Your task to perform on an android device: check data usage Image 0: 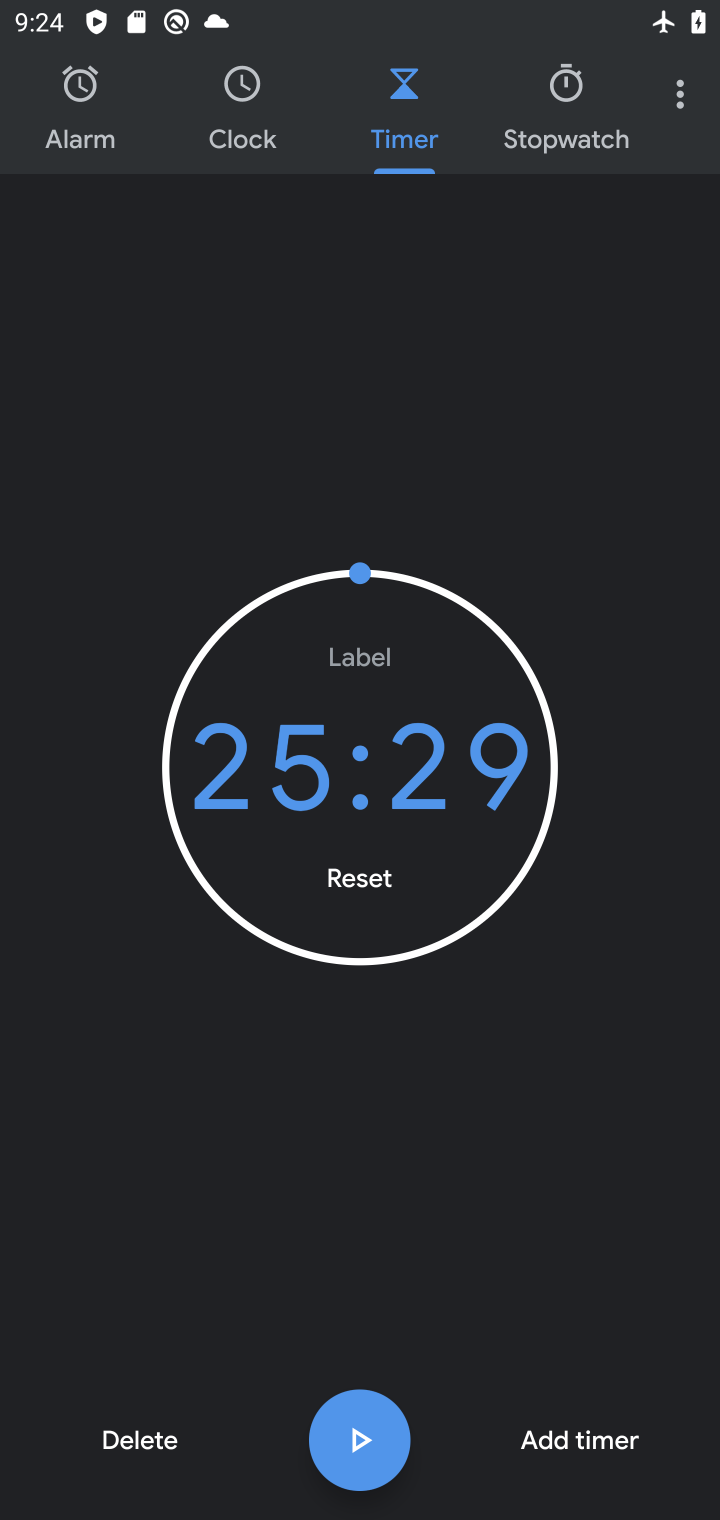
Step 0: press home button
Your task to perform on an android device: check data usage Image 1: 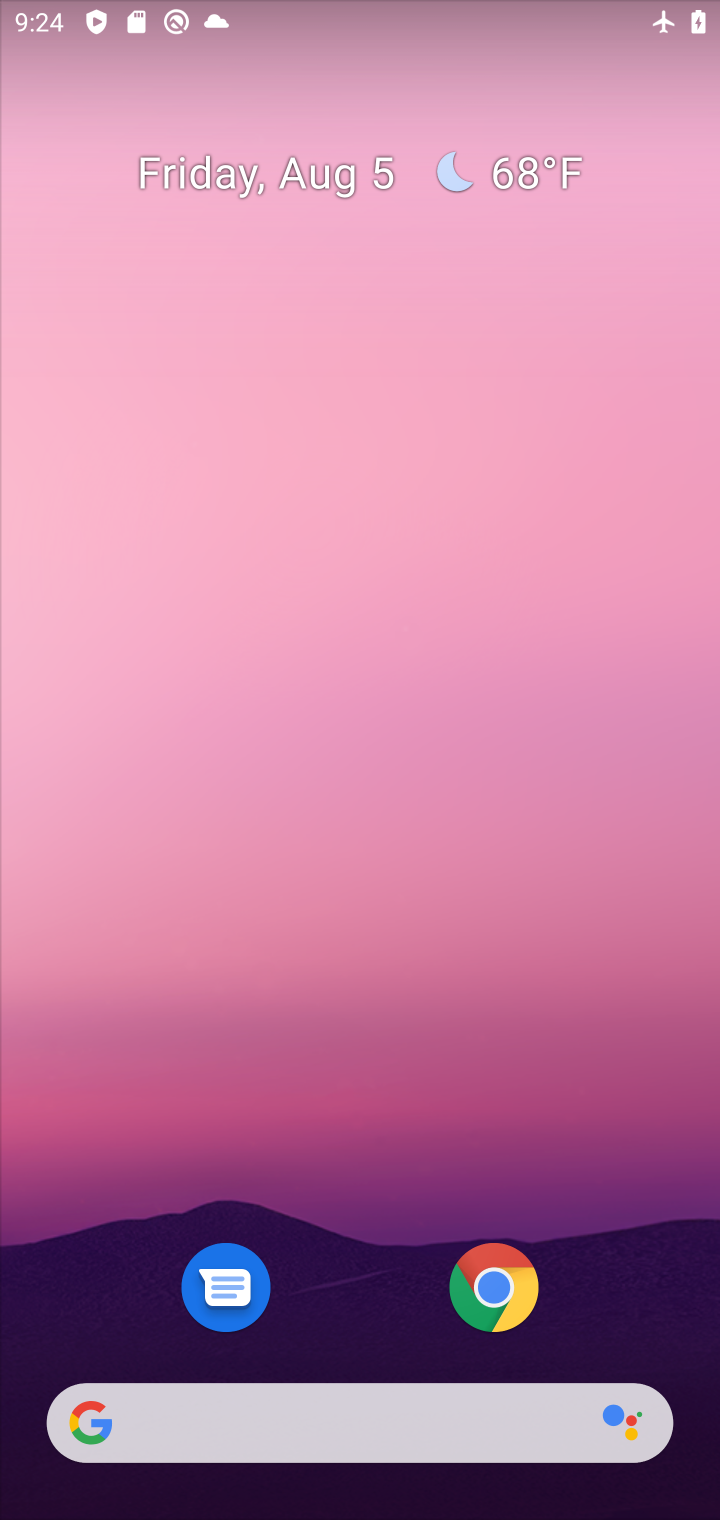
Step 1: drag from (365, 917) to (361, 132)
Your task to perform on an android device: check data usage Image 2: 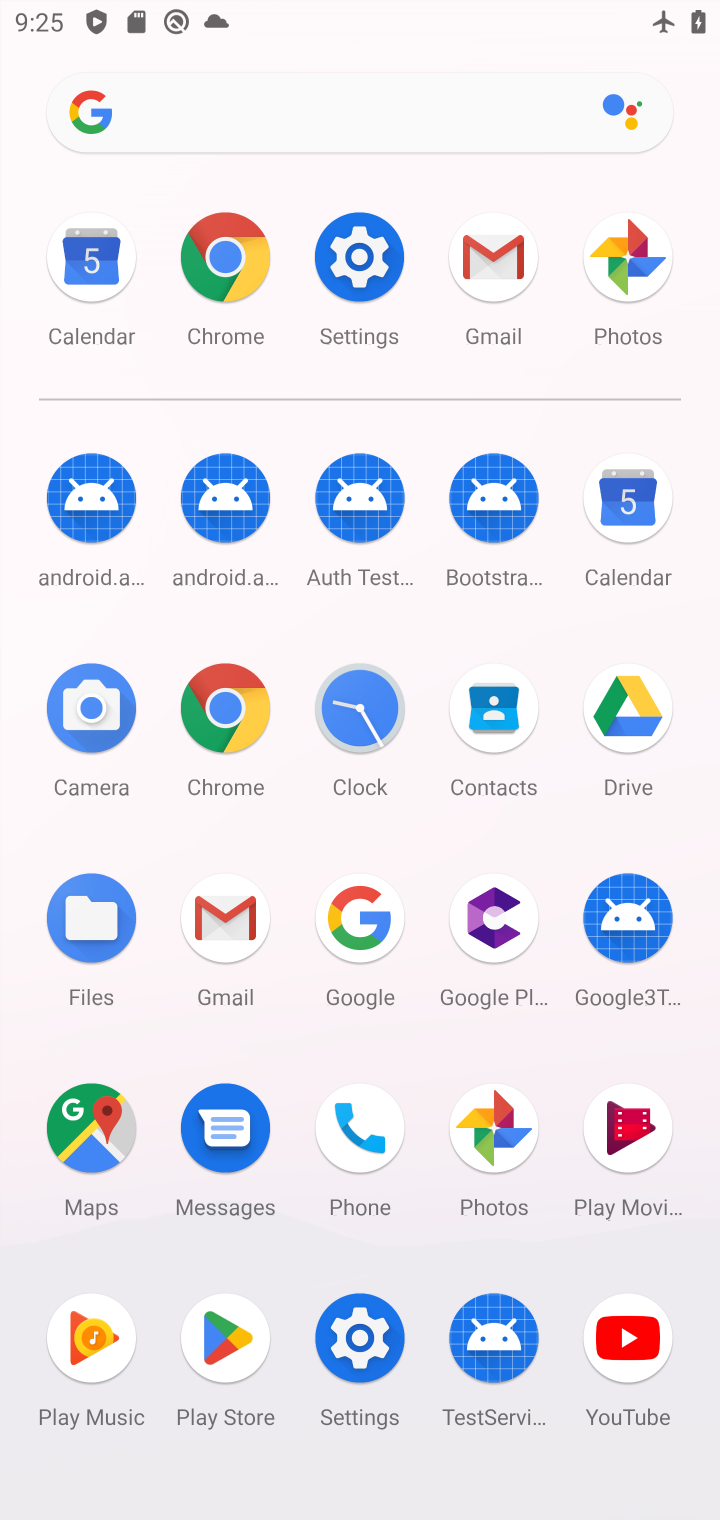
Step 2: click (346, 242)
Your task to perform on an android device: check data usage Image 3: 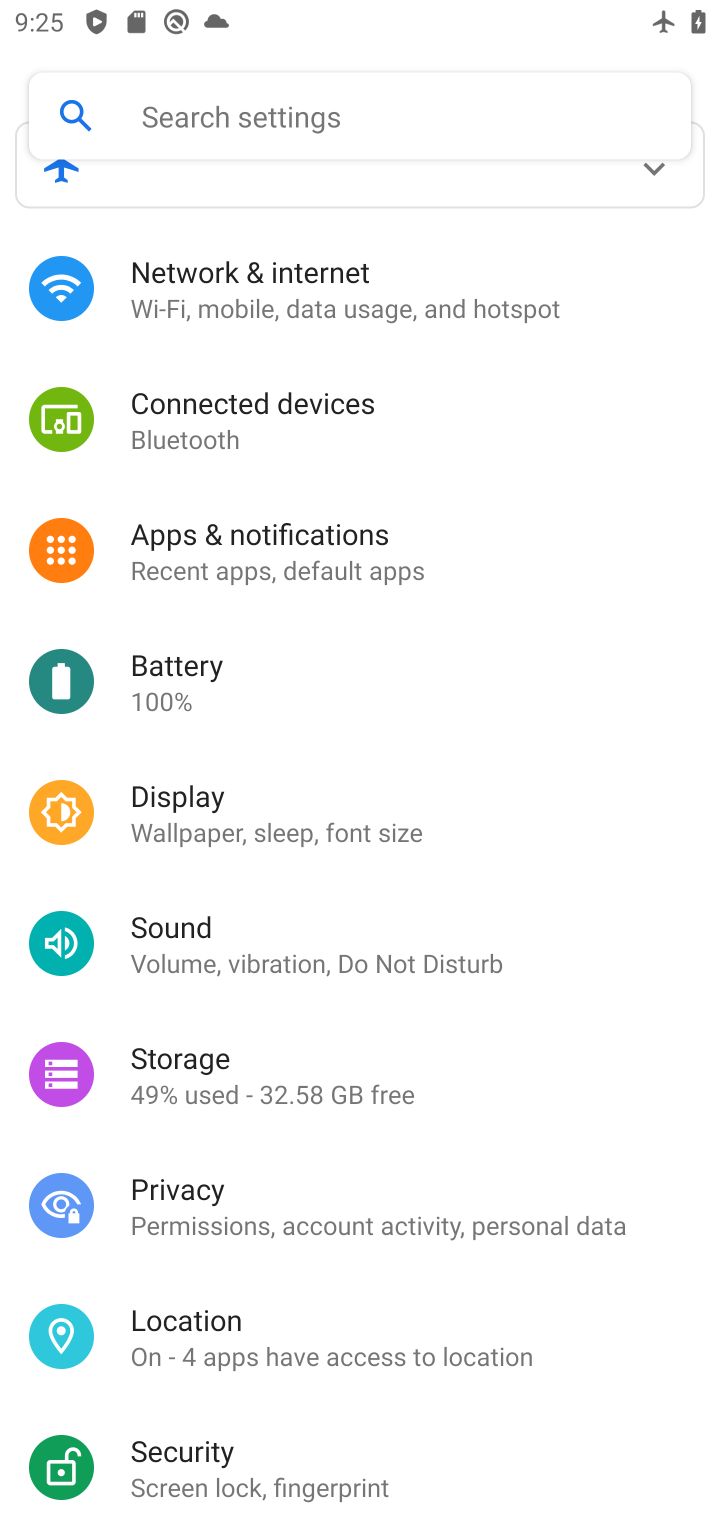
Step 3: click (264, 298)
Your task to perform on an android device: check data usage Image 4: 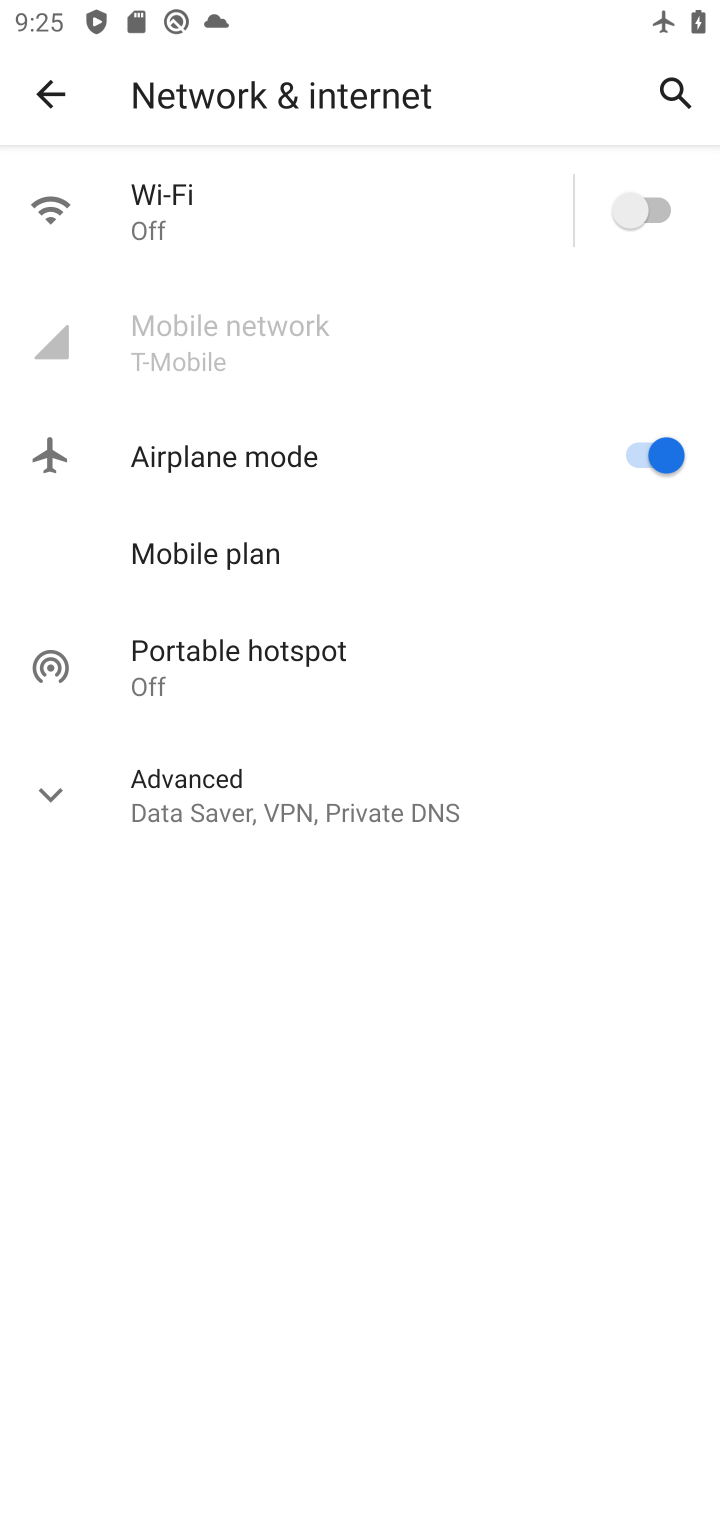
Step 4: click (643, 448)
Your task to perform on an android device: check data usage Image 5: 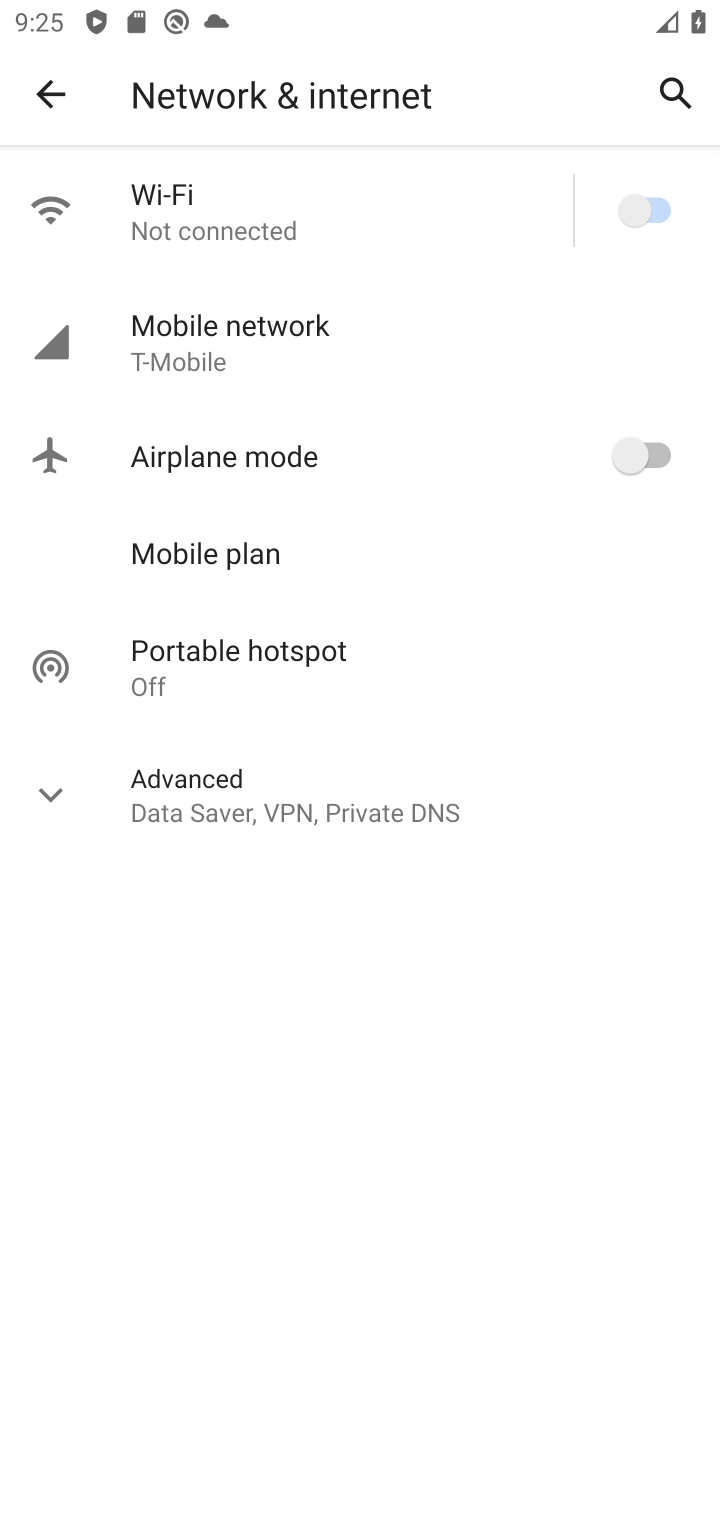
Step 5: click (200, 335)
Your task to perform on an android device: check data usage Image 6: 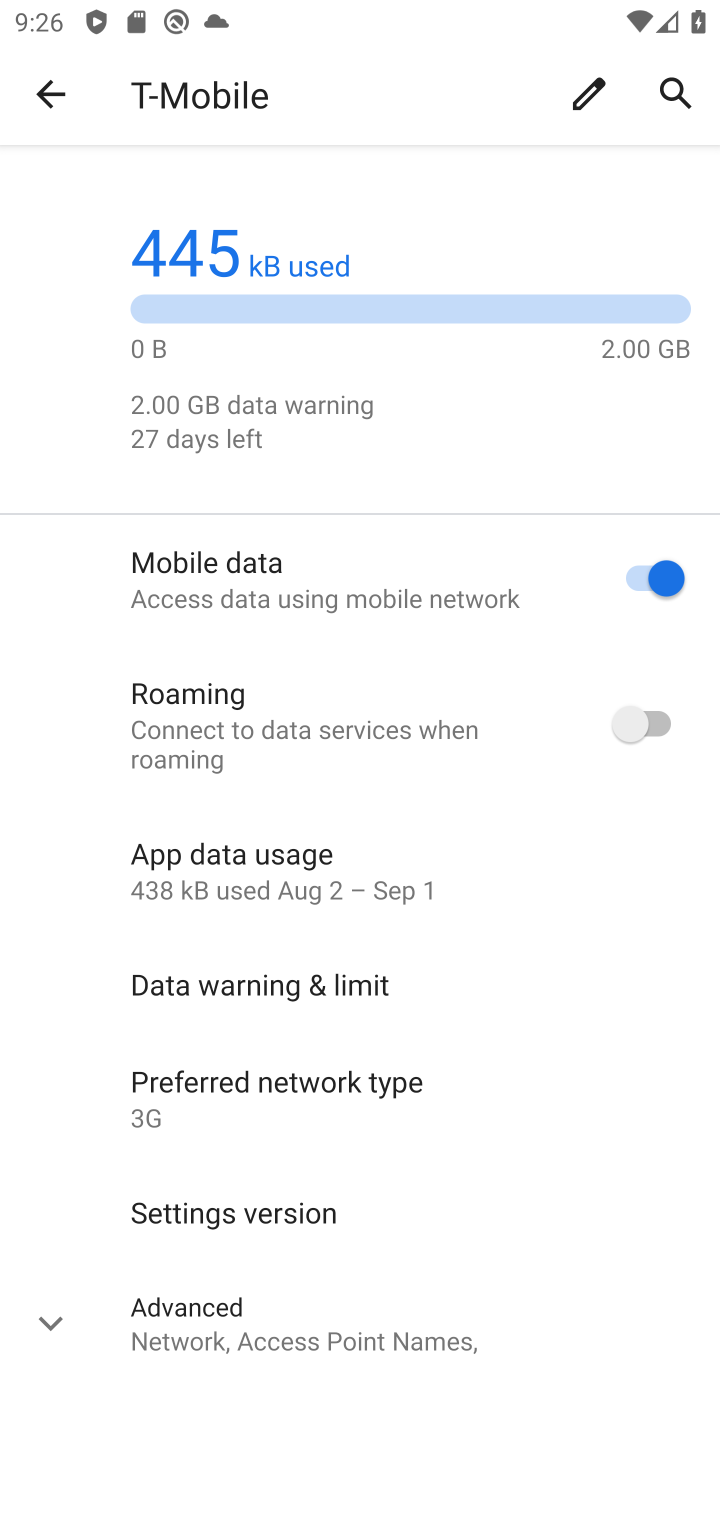
Step 6: click (242, 876)
Your task to perform on an android device: check data usage Image 7: 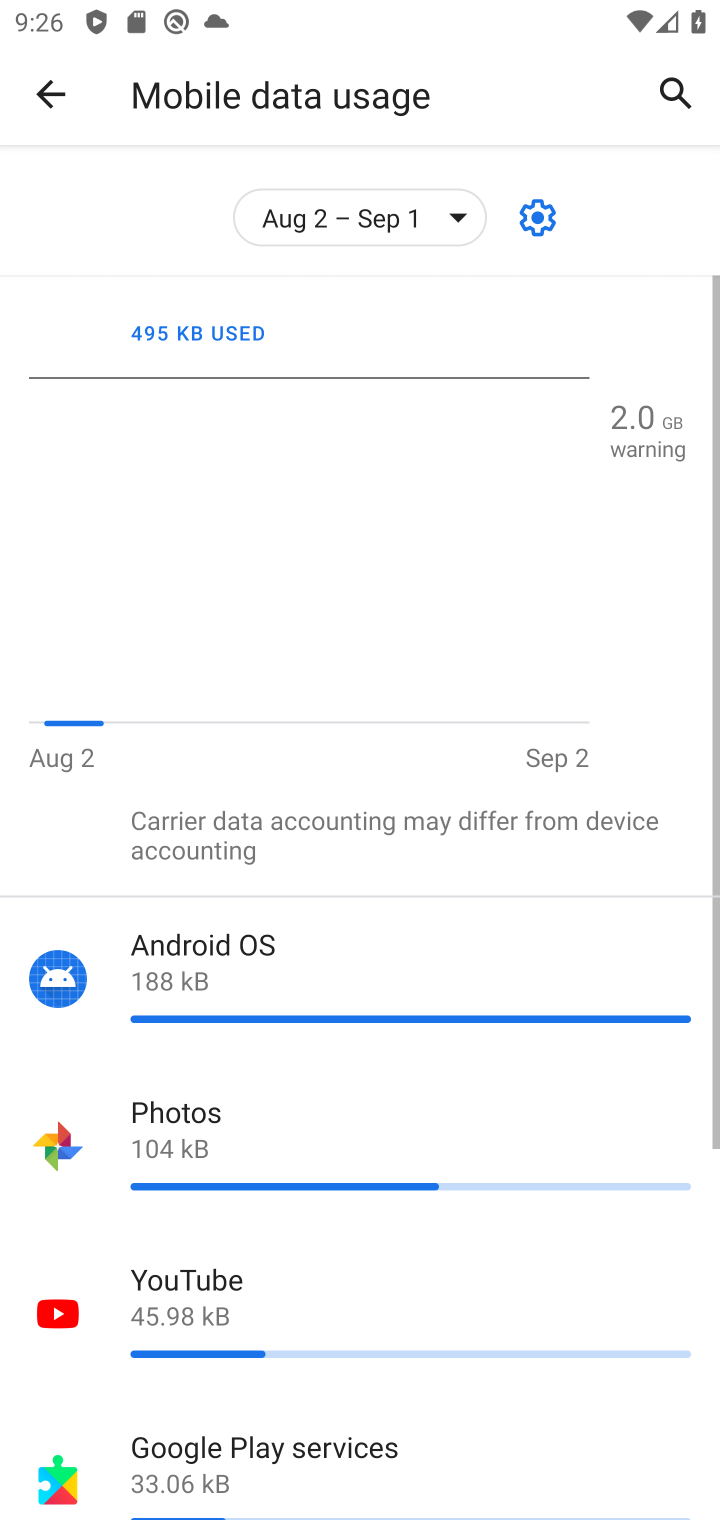
Step 7: task complete